Your task to perform on an android device: change notifications settings Image 0: 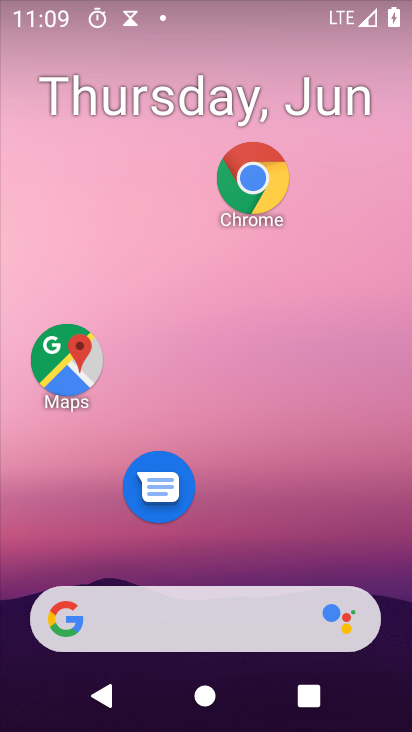
Step 0: drag from (232, 708) to (262, 1)
Your task to perform on an android device: change notifications settings Image 1: 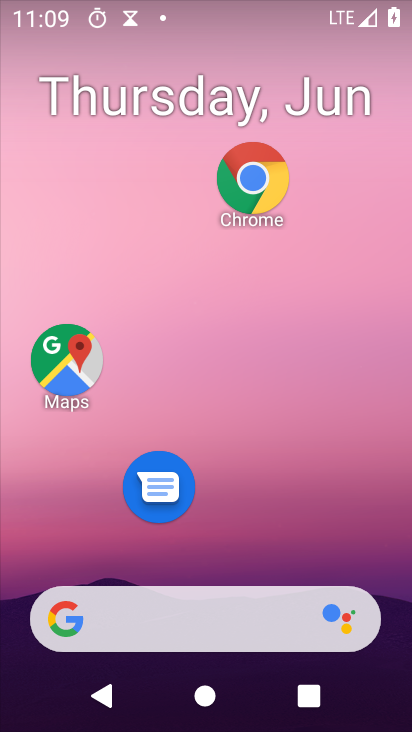
Step 1: drag from (219, 726) to (189, 1)
Your task to perform on an android device: change notifications settings Image 2: 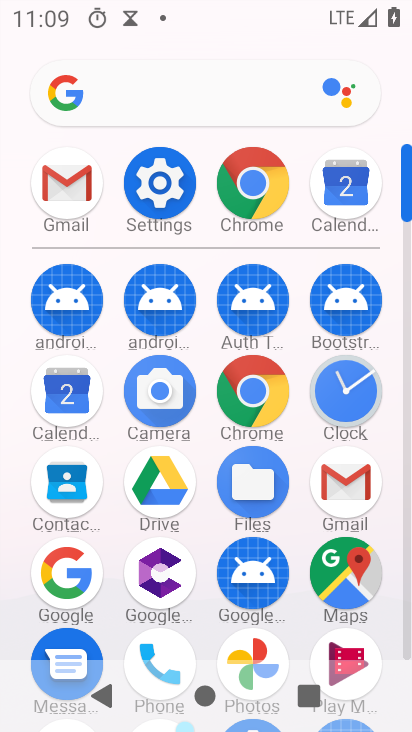
Step 2: click (147, 183)
Your task to perform on an android device: change notifications settings Image 3: 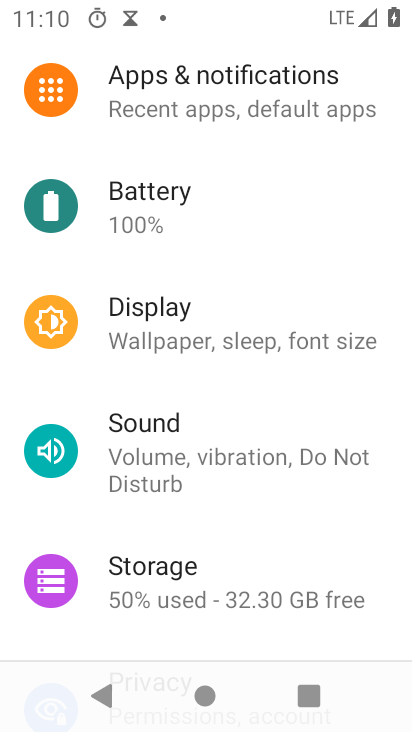
Step 3: click (263, 100)
Your task to perform on an android device: change notifications settings Image 4: 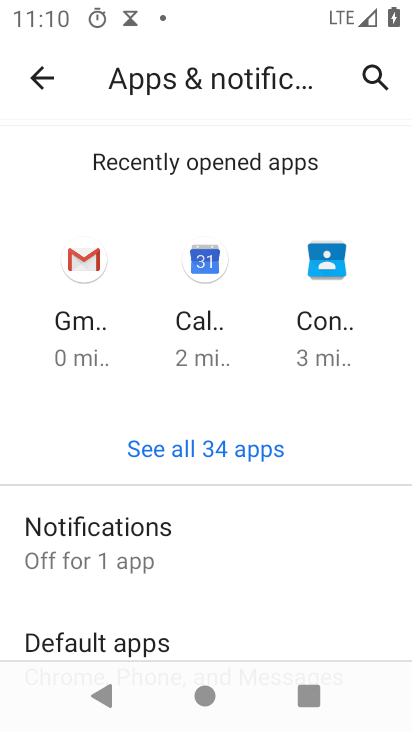
Step 4: click (121, 544)
Your task to perform on an android device: change notifications settings Image 5: 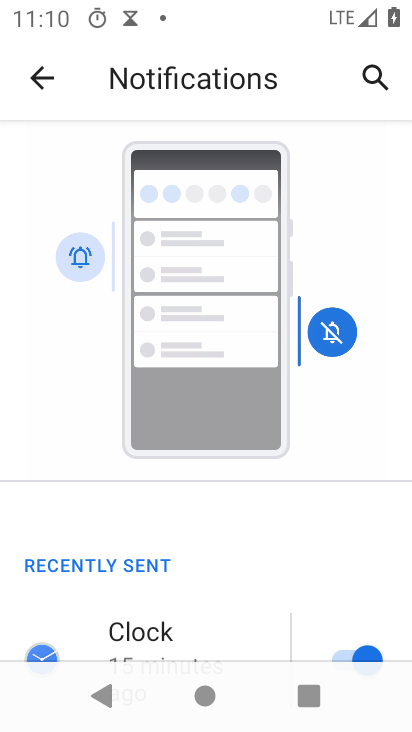
Step 5: drag from (191, 645) to (193, 274)
Your task to perform on an android device: change notifications settings Image 6: 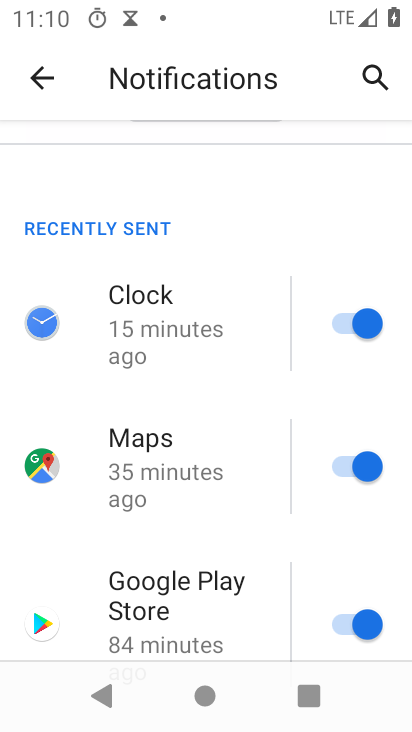
Step 6: drag from (188, 648) to (193, 284)
Your task to perform on an android device: change notifications settings Image 7: 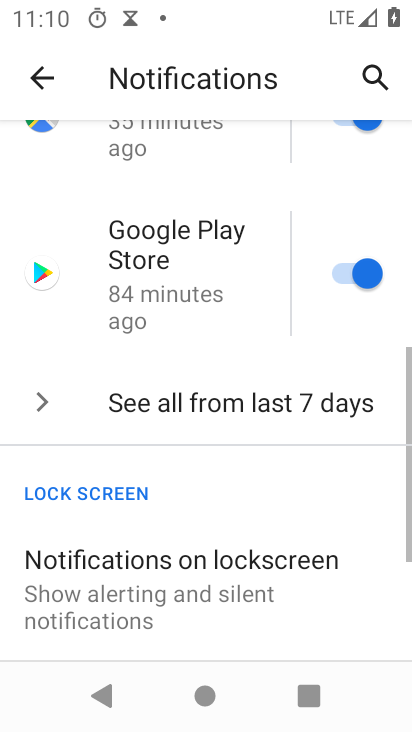
Step 7: drag from (216, 577) to (216, 268)
Your task to perform on an android device: change notifications settings Image 8: 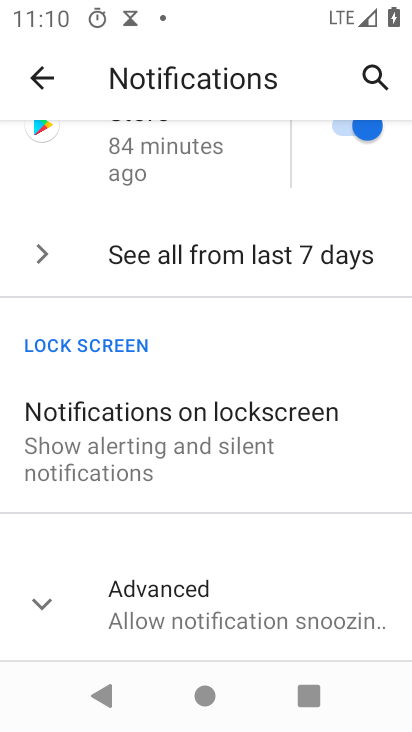
Step 8: click (189, 604)
Your task to perform on an android device: change notifications settings Image 9: 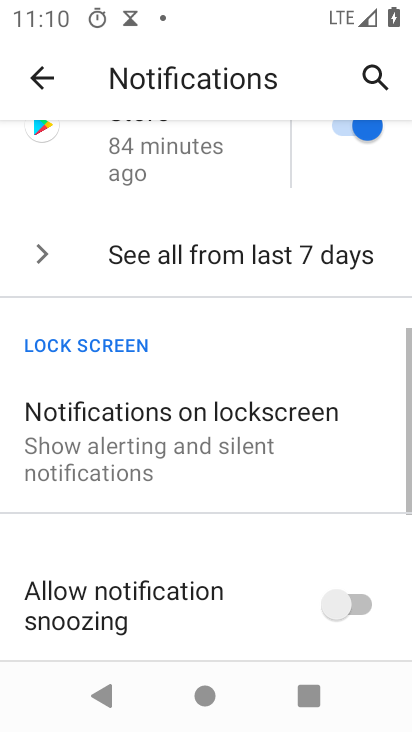
Step 9: drag from (271, 617) to (272, 342)
Your task to perform on an android device: change notifications settings Image 10: 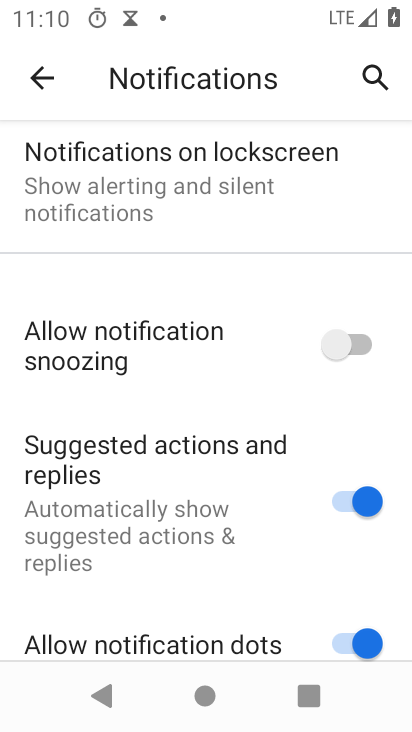
Step 10: click (357, 345)
Your task to perform on an android device: change notifications settings Image 11: 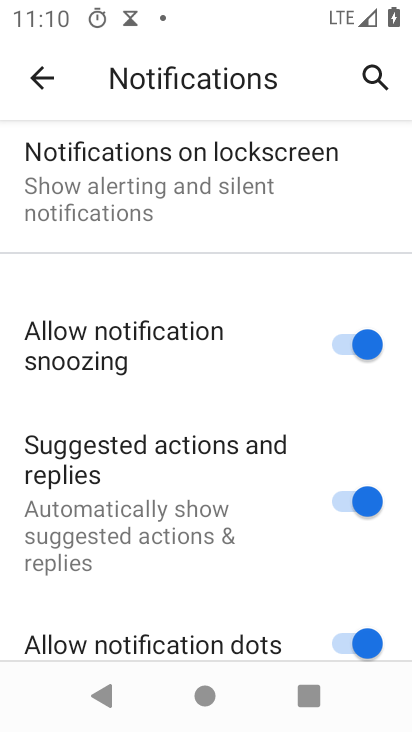
Step 11: task complete